Your task to perform on an android device: turn off airplane mode Image 0: 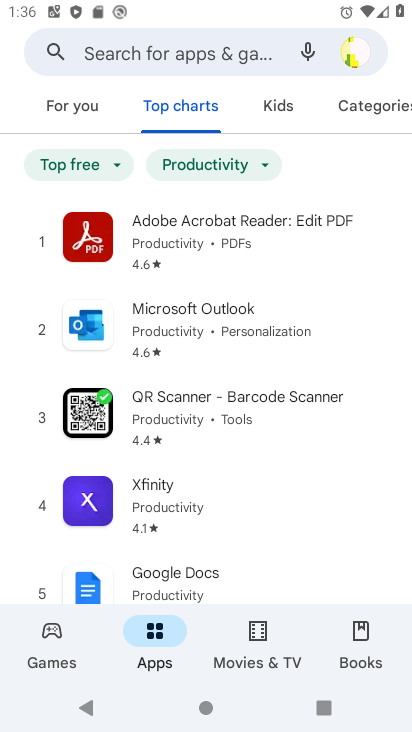
Step 0: press home button
Your task to perform on an android device: turn off airplane mode Image 1: 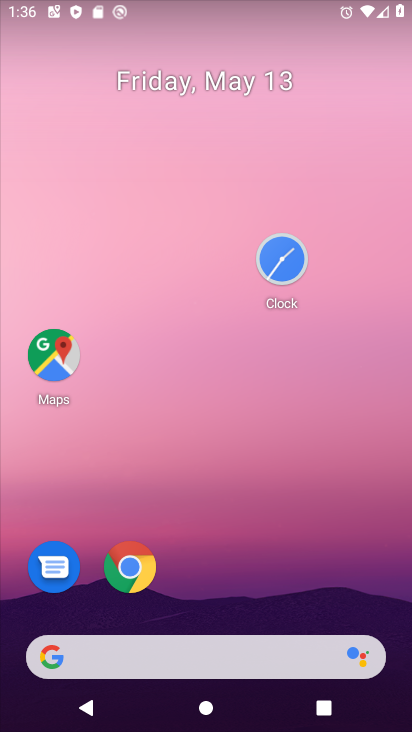
Step 1: drag from (276, 563) to (274, 142)
Your task to perform on an android device: turn off airplane mode Image 2: 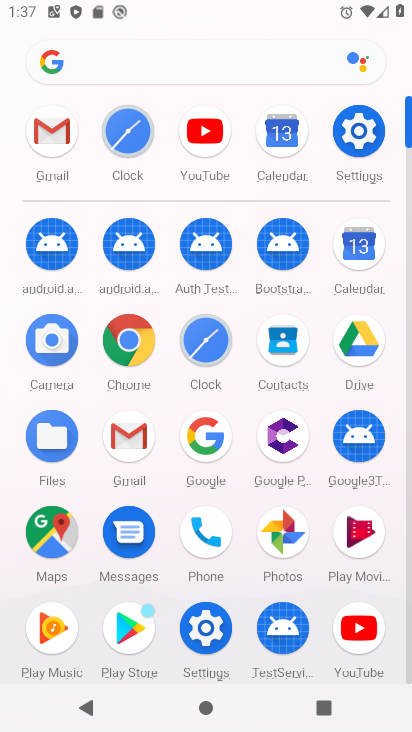
Step 2: click (192, 650)
Your task to perform on an android device: turn off airplane mode Image 3: 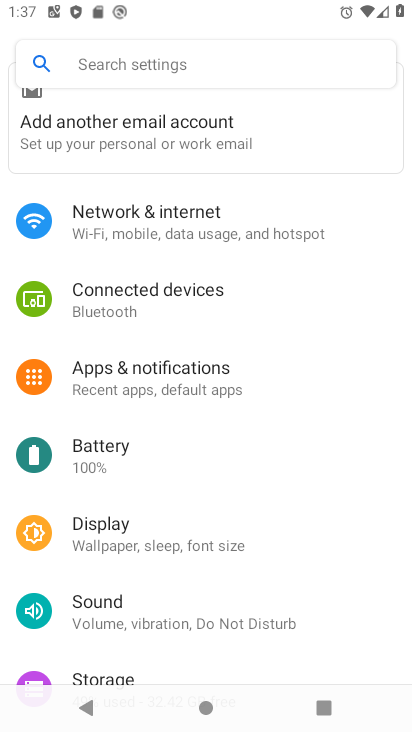
Step 3: click (212, 227)
Your task to perform on an android device: turn off airplane mode Image 4: 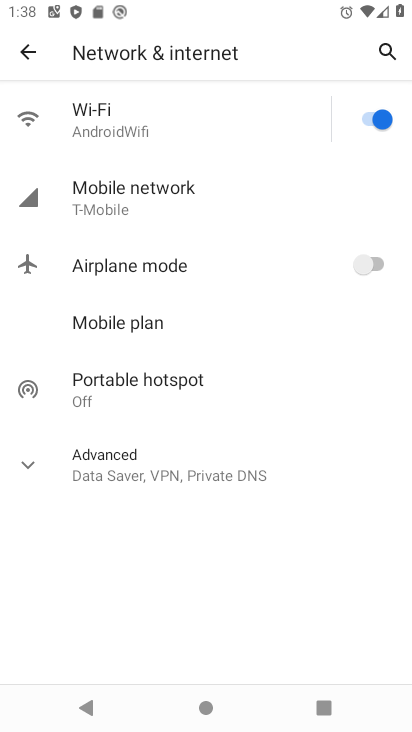
Step 4: click (358, 260)
Your task to perform on an android device: turn off airplane mode Image 5: 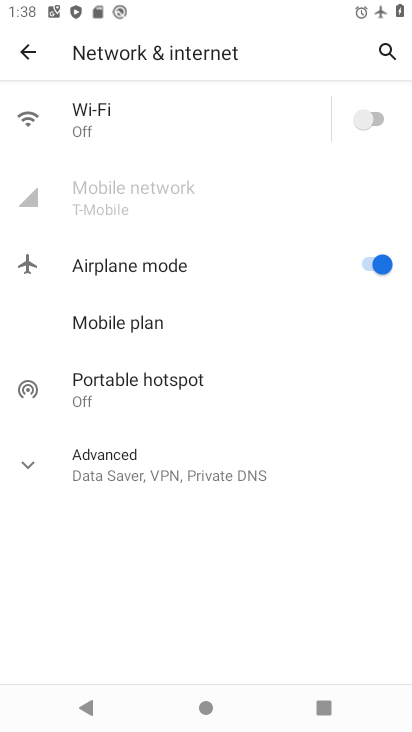
Step 5: click (371, 248)
Your task to perform on an android device: turn off airplane mode Image 6: 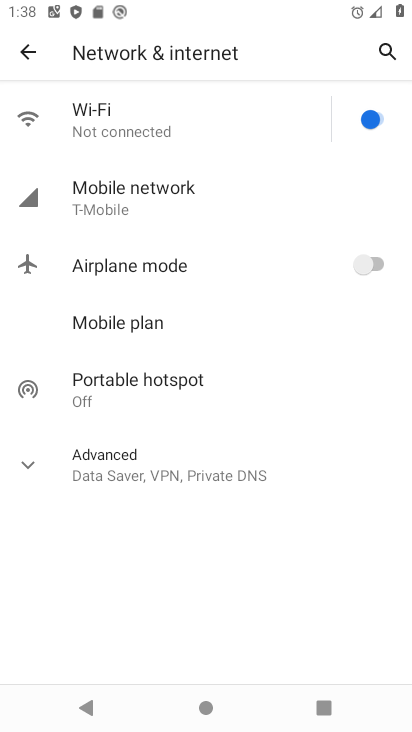
Step 6: task complete